Your task to perform on an android device: toggle improve location accuracy Image 0: 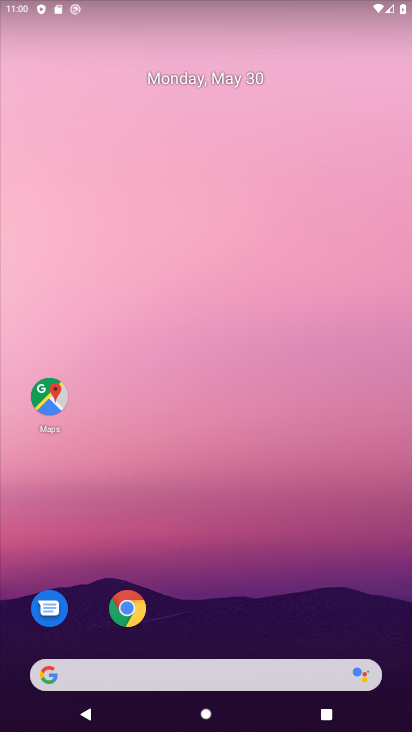
Step 0: drag from (302, 652) to (300, 9)
Your task to perform on an android device: toggle improve location accuracy Image 1: 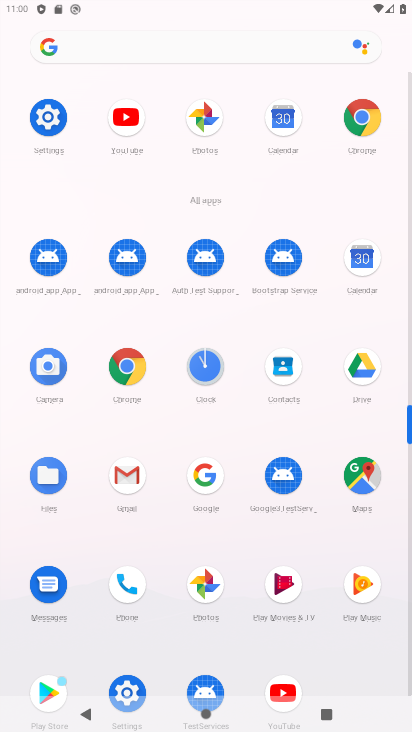
Step 1: click (44, 123)
Your task to perform on an android device: toggle improve location accuracy Image 2: 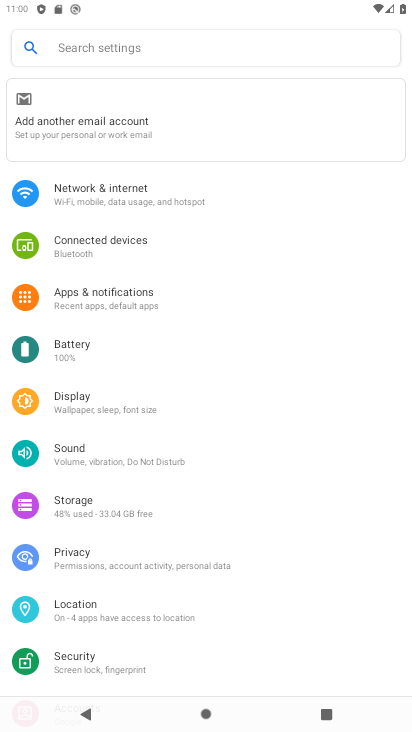
Step 2: click (80, 600)
Your task to perform on an android device: toggle improve location accuracy Image 3: 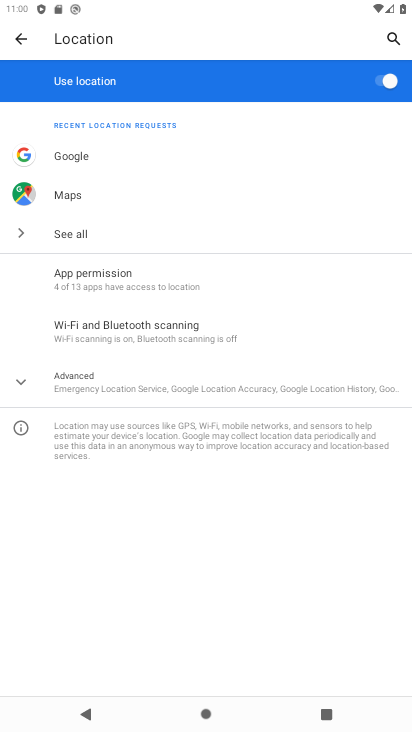
Step 3: click (20, 382)
Your task to perform on an android device: toggle improve location accuracy Image 4: 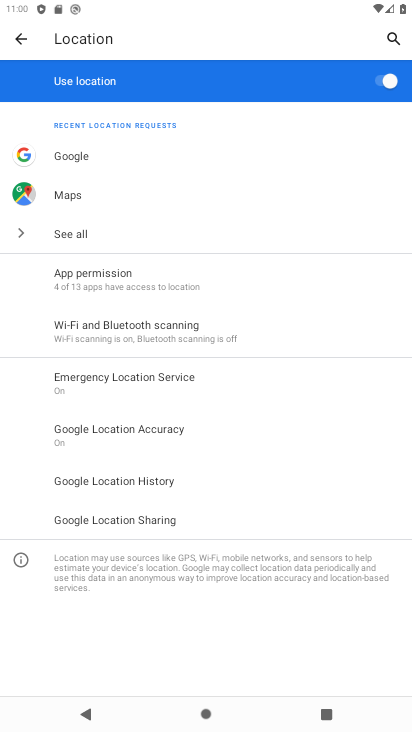
Step 4: click (139, 436)
Your task to perform on an android device: toggle improve location accuracy Image 5: 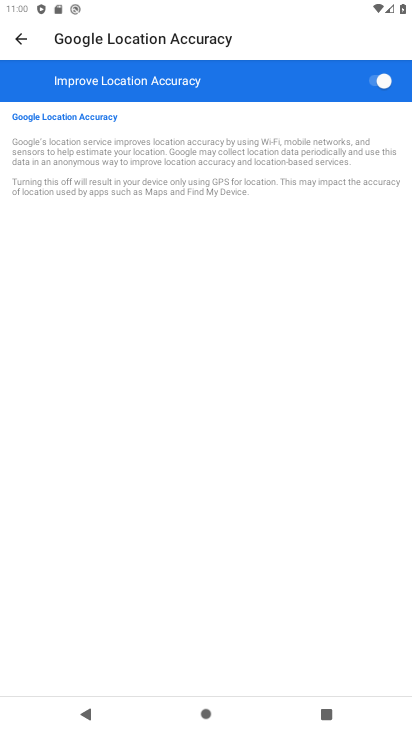
Step 5: click (383, 80)
Your task to perform on an android device: toggle improve location accuracy Image 6: 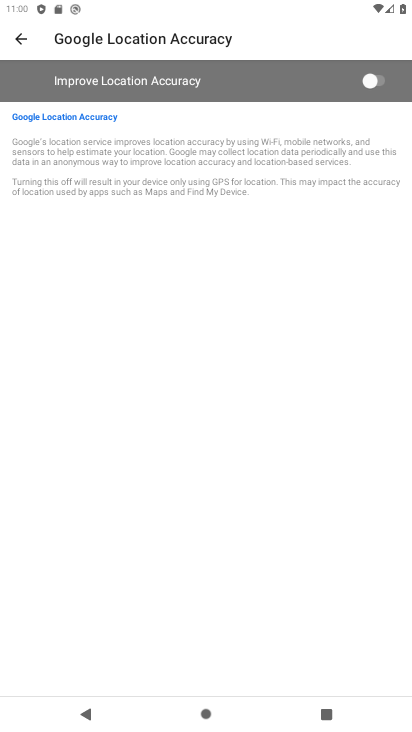
Step 6: task complete